Your task to perform on an android device: turn off smart reply in the gmail app Image 0: 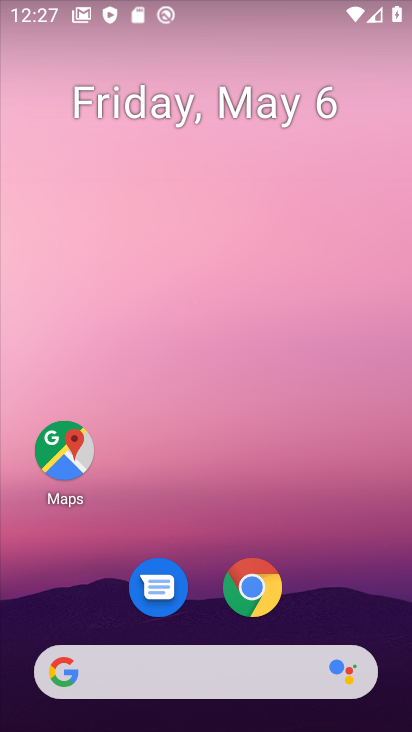
Step 0: drag from (165, 638) to (278, 107)
Your task to perform on an android device: turn off smart reply in the gmail app Image 1: 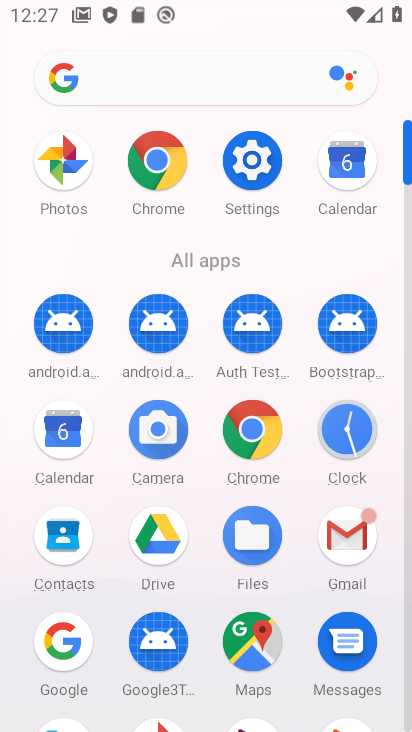
Step 1: click (346, 539)
Your task to perform on an android device: turn off smart reply in the gmail app Image 2: 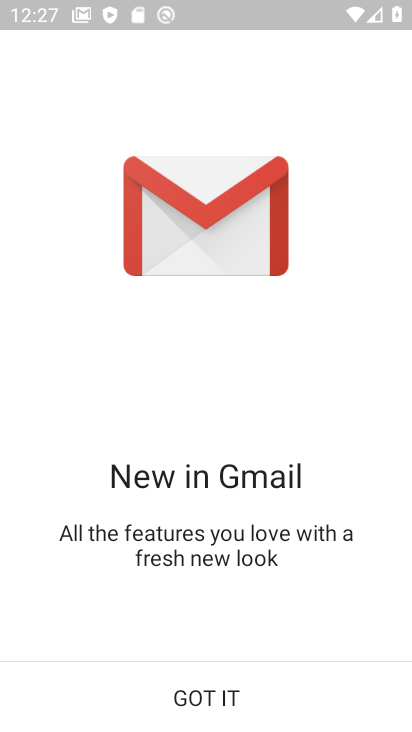
Step 2: click (257, 705)
Your task to perform on an android device: turn off smart reply in the gmail app Image 3: 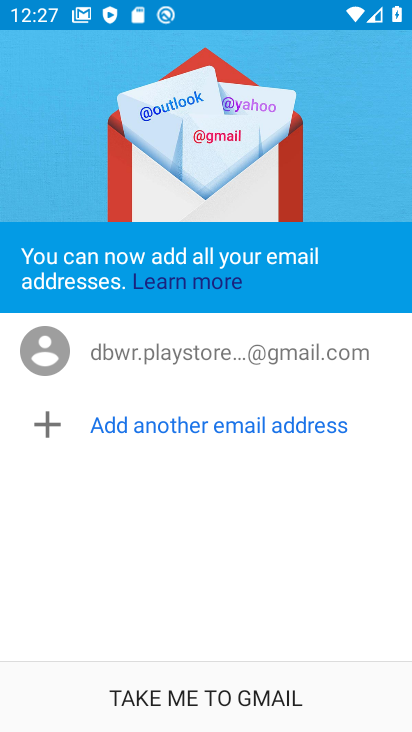
Step 3: click (255, 705)
Your task to perform on an android device: turn off smart reply in the gmail app Image 4: 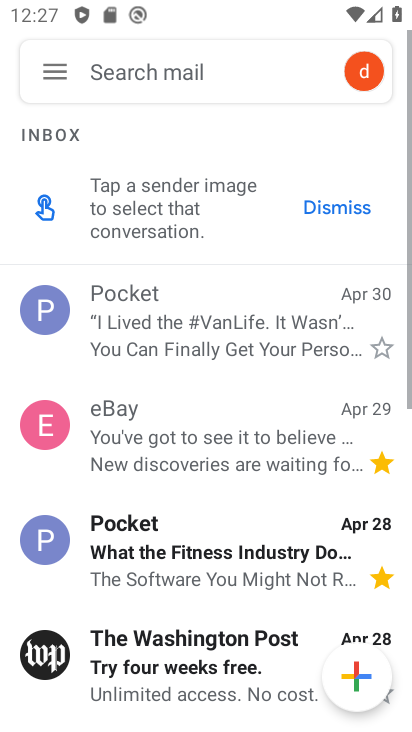
Step 4: click (57, 81)
Your task to perform on an android device: turn off smart reply in the gmail app Image 5: 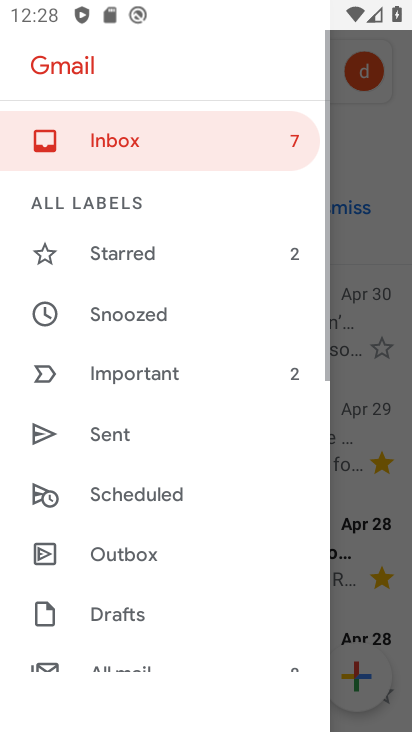
Step 5: drag from (148, 657) to (249, 260)
Your task to perform on an android device: turn off smart reply in the gmail app Image 6: 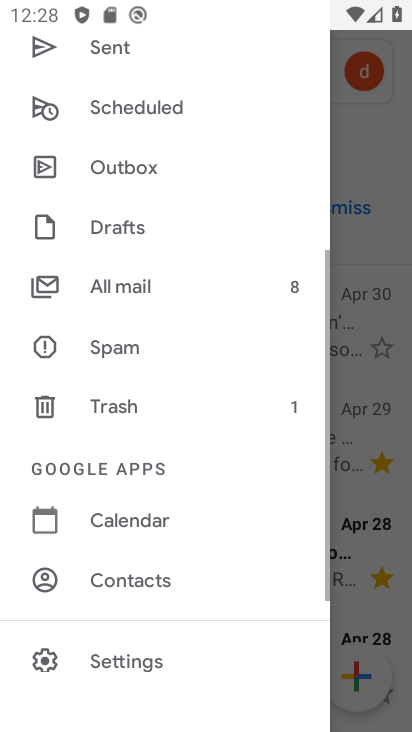
Step 6: drag from (165, 611) to (278, 206)
Your task to perform on an android device: turn off smart reply in the gmail app Image 7: 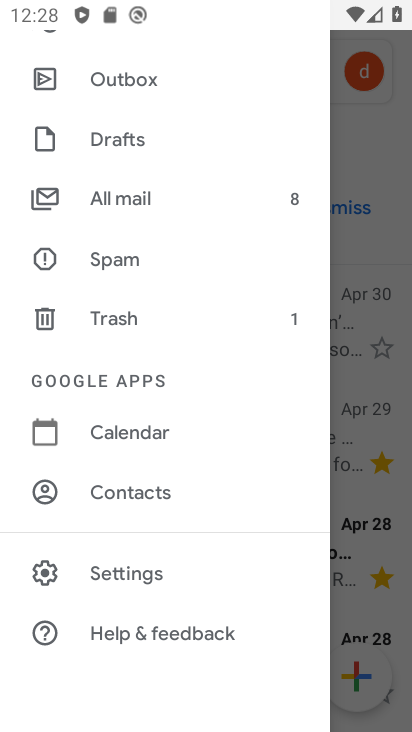
Step 7: click (132, 581)
Your task to perform on an android device: turn off smart reply in the gmail app Image 8: 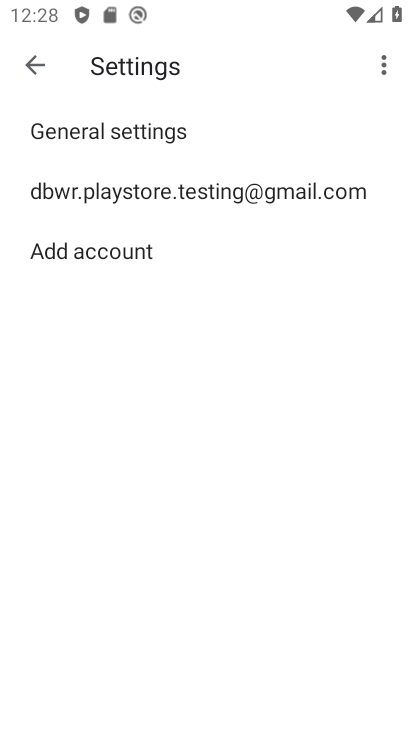
Step 8: click (274, 198)
Your task to perform on an android device: turn off smart reply in the gmail app Image 9: 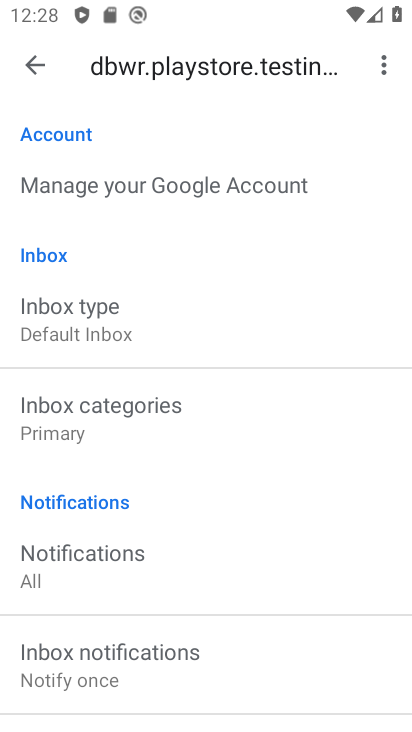
Step 9: drag from (155, 663) to (286, 123)
Your task to perform on an android device: turn off smart reply in the gmail app Image 10: 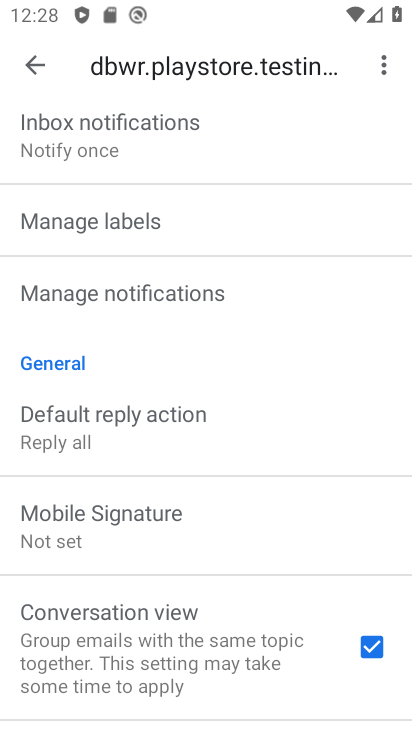
Step 10: drag from (202, 613) to (288, 207)
Your task to perform on an android device: turn off smart reply in the gmail app Image 11: 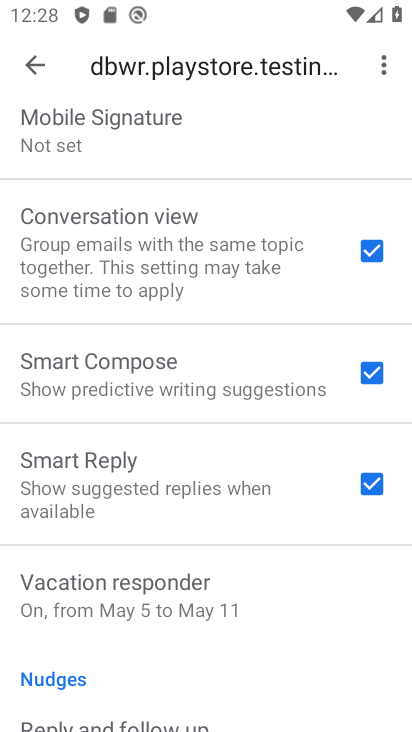
Step 11: click (385, 487)
Your task to perform on an android device: turn off smart reply in the gmail app Image 12: 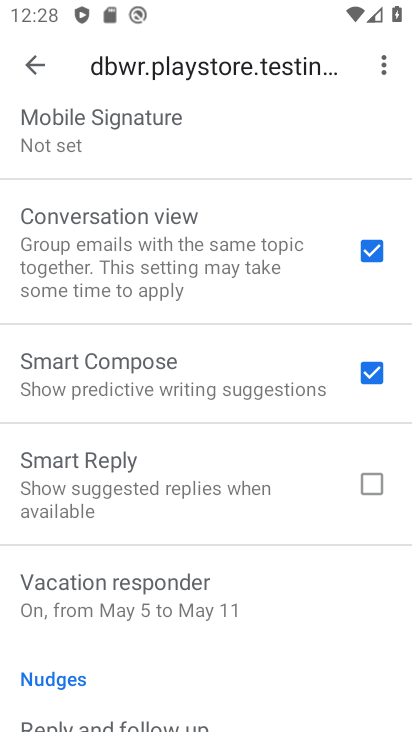
Step 12: task complete